Your task to perform on an android device: Go to Google Image 0: 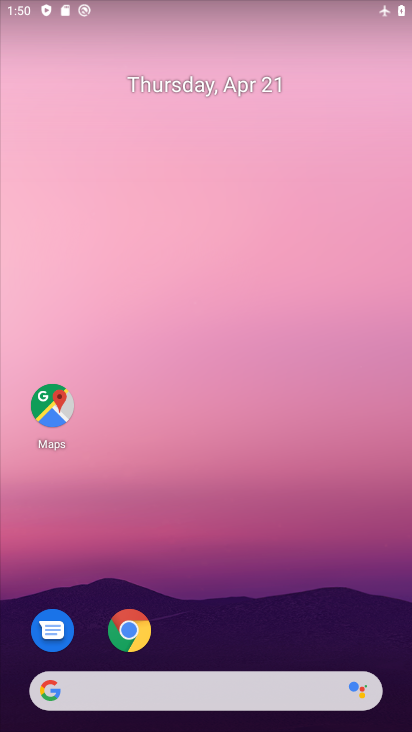
Step 0: drag from (348, 570) to (360, 3)
Your task to perform on an android device: Go to Google Image 1: 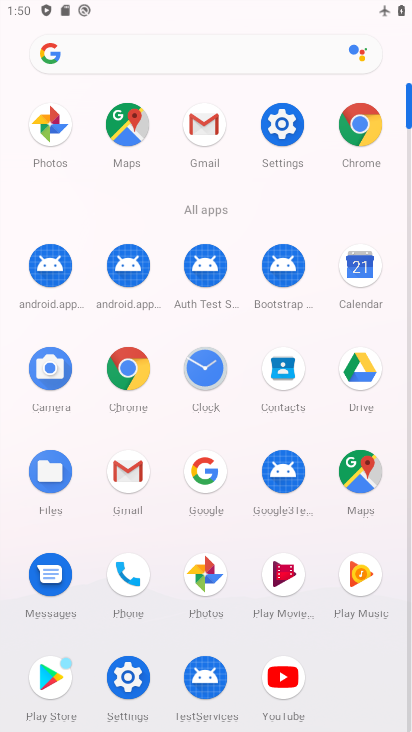
Step 1: click (203, 476)
Your task to perform on an android device: Go to Google Image 2: 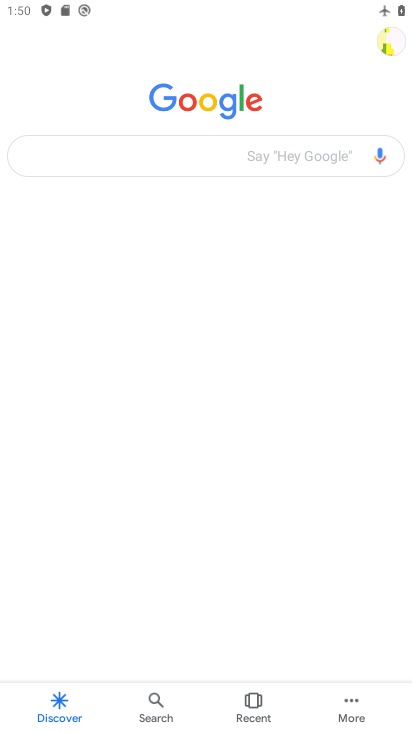
Step 2: task complete